Your task to perform on an android device: open app "Fetch Rewards" (install if not already installed) Image 0: 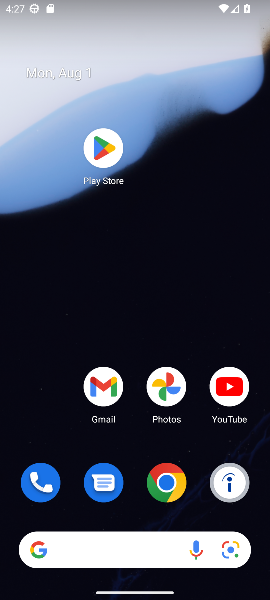
Step 0: press home button
Your task to perform on an android device: open app "Fetch Rewards" (install if not already installed) Image 1: 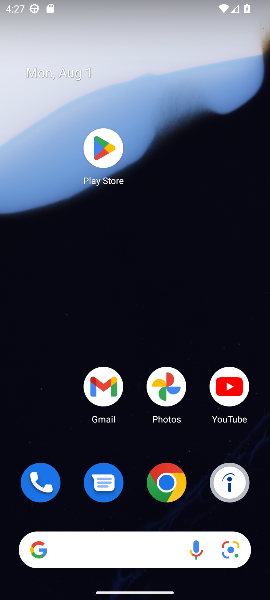
Step 1: click (110, 150)
Your task to perform on an android device: open app "Fetch Rewards" (install if not already installed) Image 2: 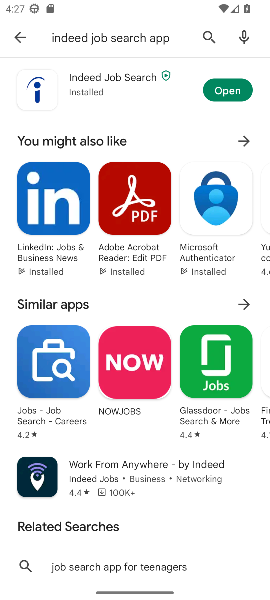
Step 2: click (207, 32)
Your task to perform on an android device: open app "Fetch Rewards" (install if not already installed) Image 3: 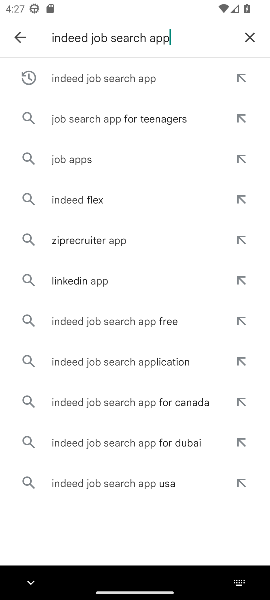
Step 3: click (248, 33)
Your task to perform on an android device: open app "Fetch Rewards" (install if not already installed) Image 4: 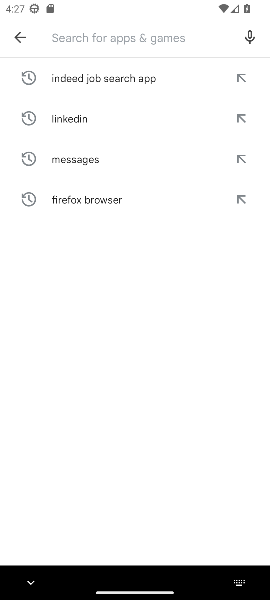
Step 4: type "Fetch Rewards"
Your task to perform on an android device: open app "Fetch Rewards" (install if not already installed) Image 5: 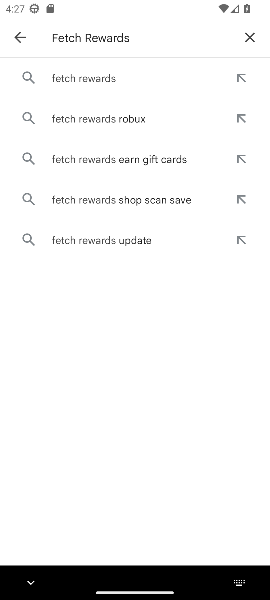
Step 5: click (94, 72)
Your task to perform on an android device: open app "Fetch Rewards" (install if not already installed) Image 6: 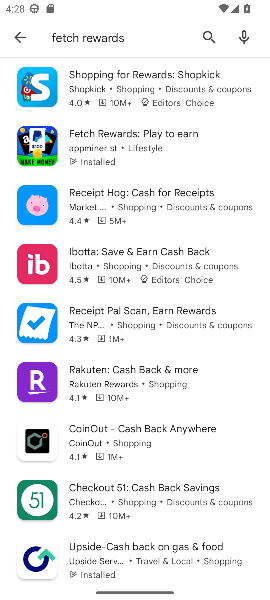
Step 6: click (122, 144)
Your task to perform on an android device: open app "Fetch Rewards" (install if not already installed) Image 7: 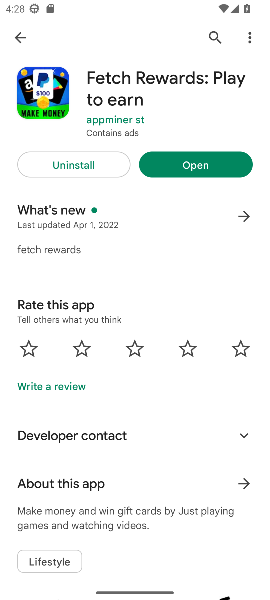
Step 7: click (215, 165)
Your task to perform on an android device: open app "Fetch Rewards" (install if not already installed) Image 8: 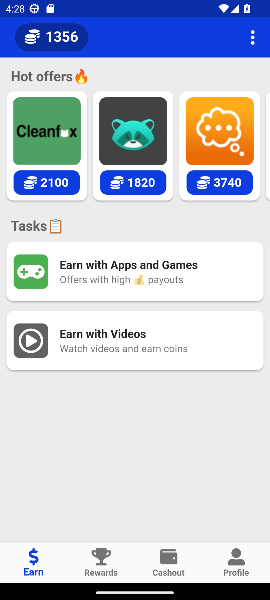
Step 8: task complete